Your task to perform on an android device: Go to Google Image 0: 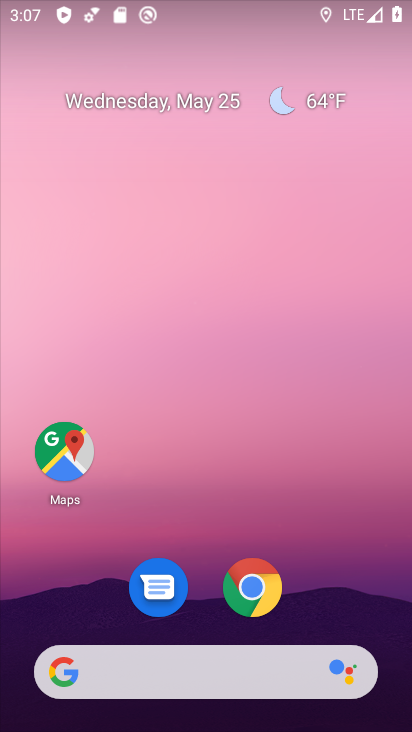
Step 0: drag from (322, 590) to (272, 264)
Your task to perform on an android device: Go to Google Image 1: 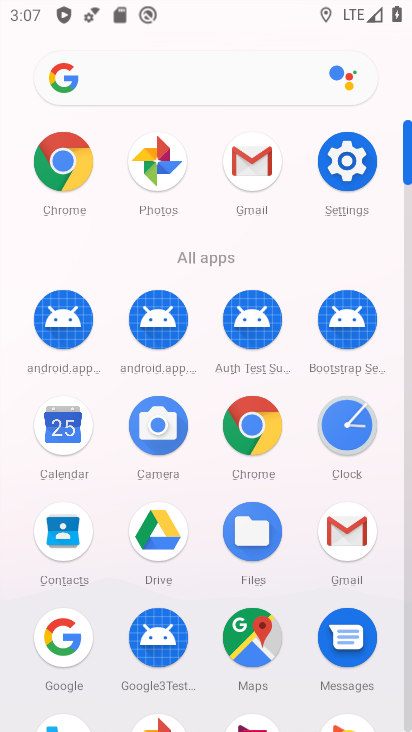
Step 1: click (60, 632)
Your task to perform on an android device: Go to Google Image 2: 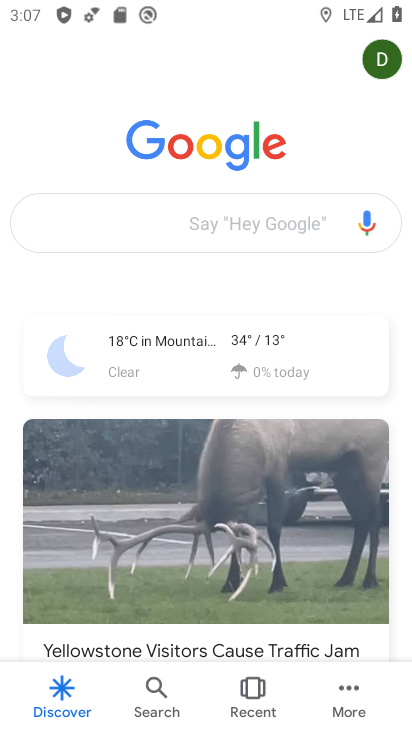
Step 2: task complete